Your task to perform on an android device: set an alarm Image 0: 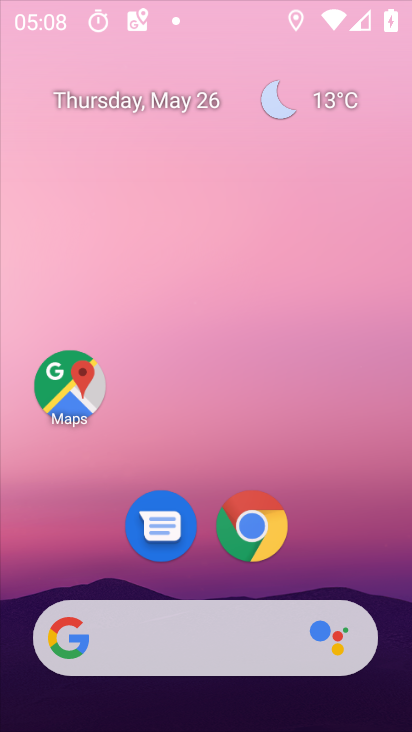
Step 0: drag from (226, 287) to (282, 3)
Your task to perform on an android device: set an alarm Image 1: 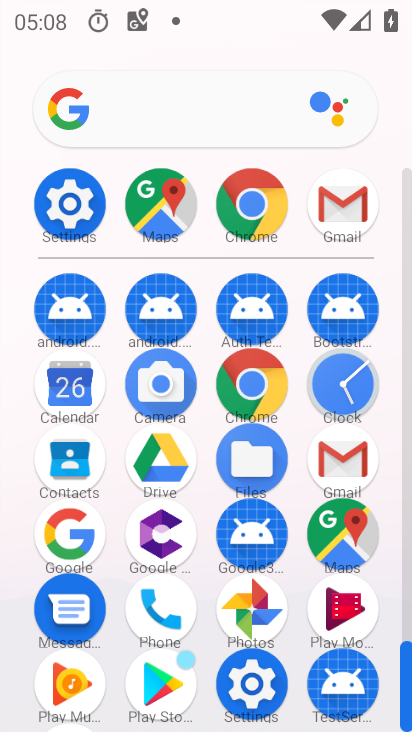
Step 1: click (253, 376)
Your task to perform on an android device: set an alarm Image 2: 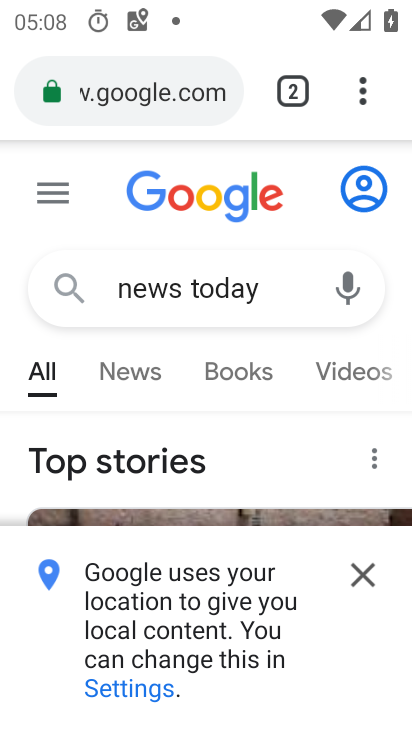
Step 2: press home button
Your task to perform on an android device: set an alarm Image 3: 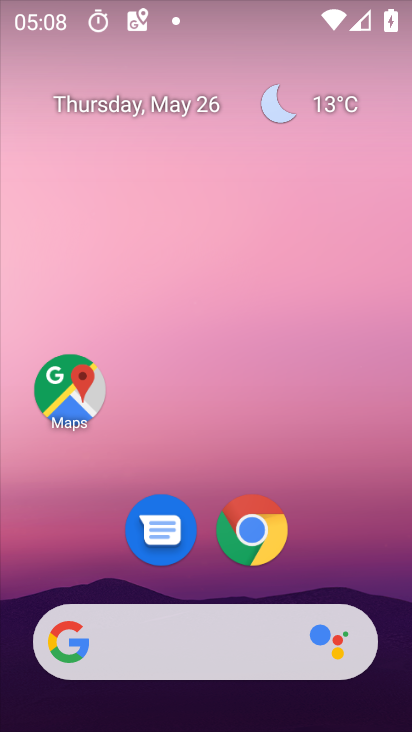
Step 3: drag from (268, 645) to (277, 86)
Your task to perform on an android device: set an alarm Image 4: 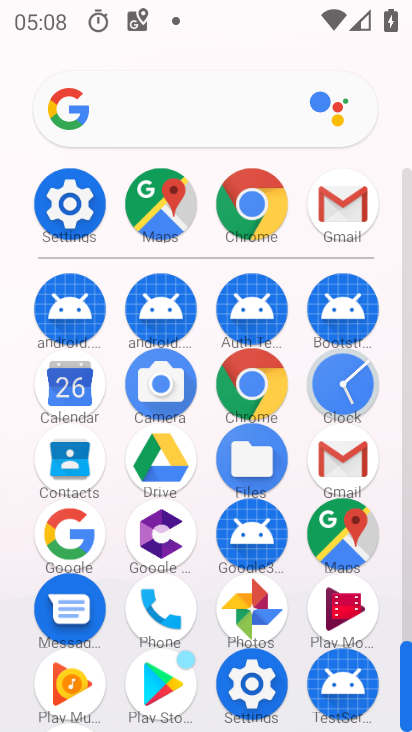
Step 4: click (335, 384)
Your task to perform on an android device: set an alarm Image 5: 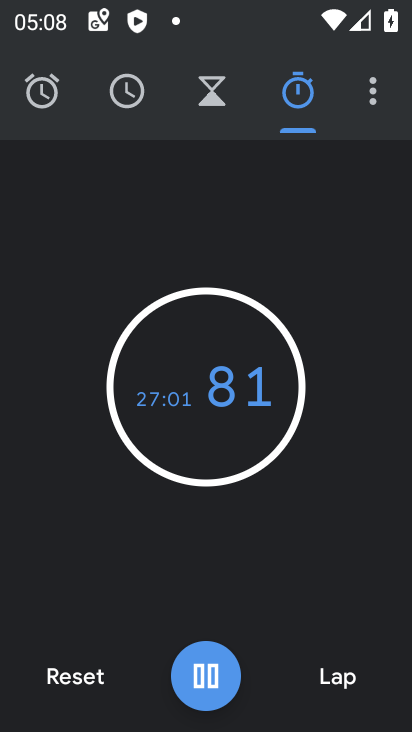
Step 5: click (43, 98)
Your task to perform on an android device: set an alarm Image 6: 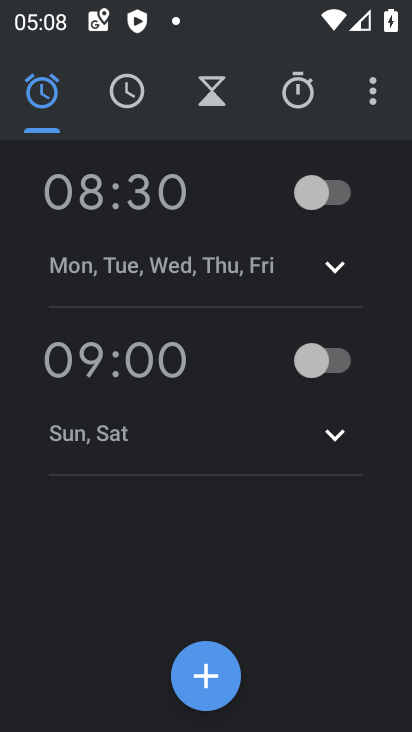
Step 6: click (331, 192)
Your task to perform on an android device: set an alarm Image 7: 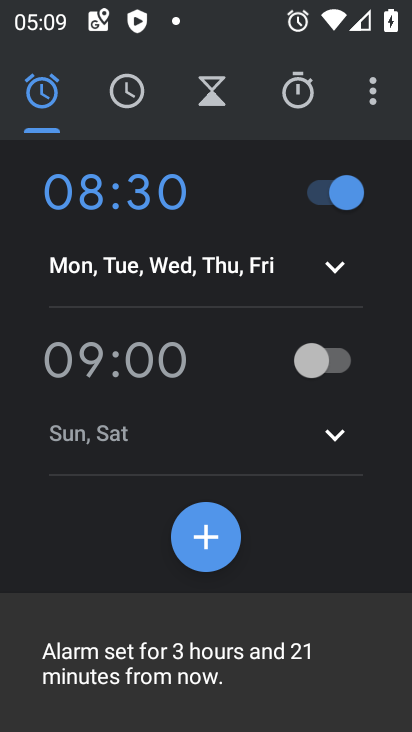
Step 7: task complete